Your task to perform on an android device: Go to Maps Image 0: 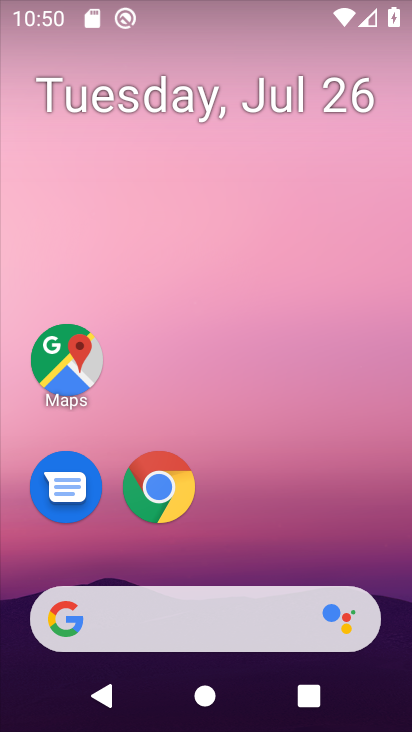
Step 0: click (79, 362)
Your task to perform on an android device: Go to Maps Image 1: 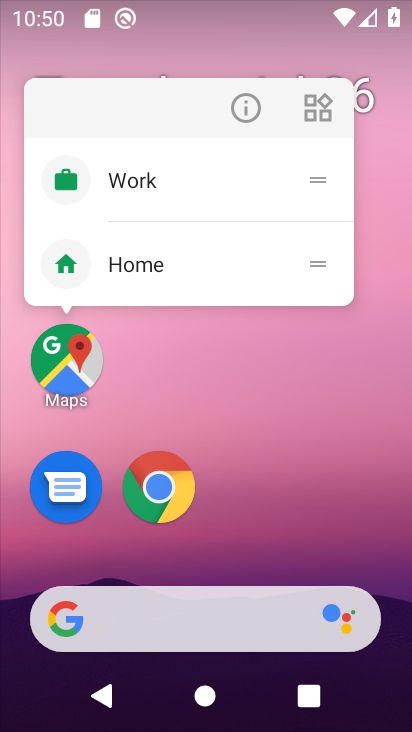
Step 1: click (56, 367)
Your task to perform on an android device: Go to Maps Image 2: 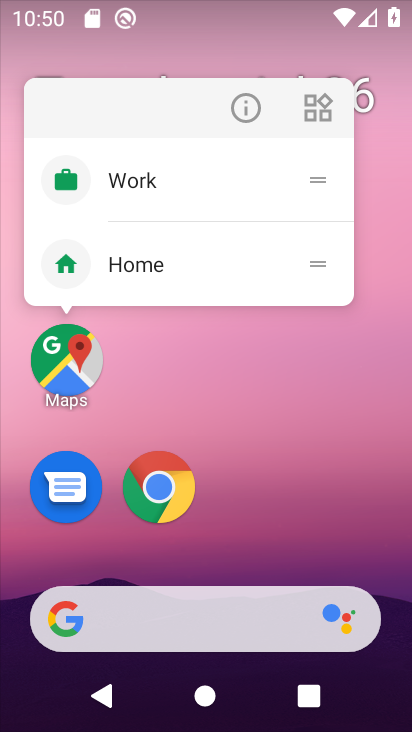
Step 2: click (56, 367)
Your task to perform on an android device: Go to Maps Image 3: 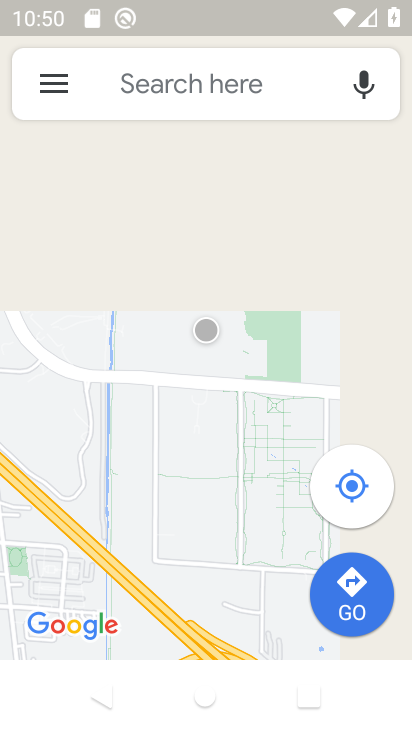
Step 3: task complete